Your task to perform on an android device: Empty the shopping cart on target.com. Add "alienware aurora" to the cart on target.com Image 0: 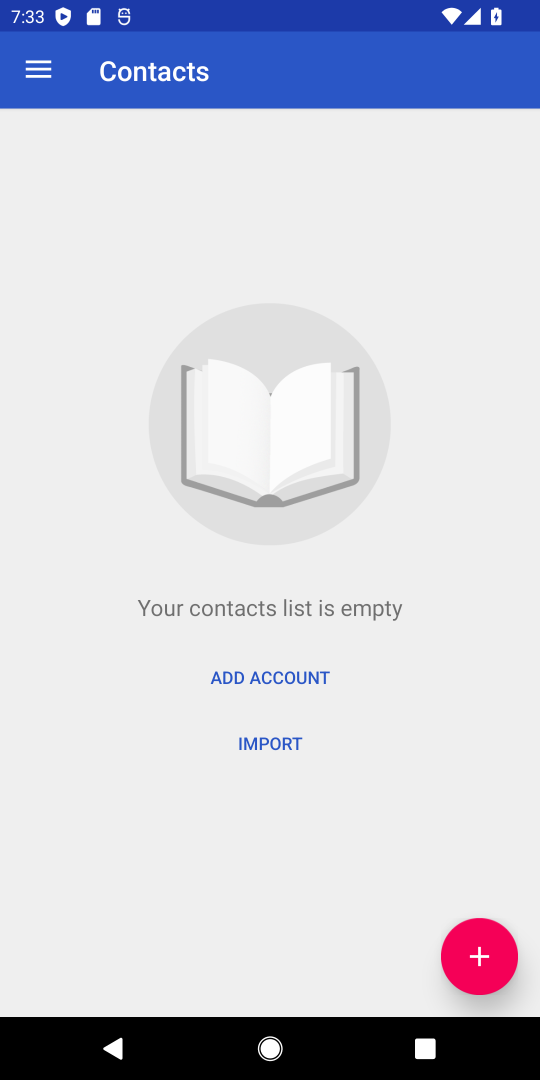
Step 0: press home button
Your task to perform on an android device: Empty the shopping cart on target.com. Add "alienware aurora" to the cart on target.com Image 1: 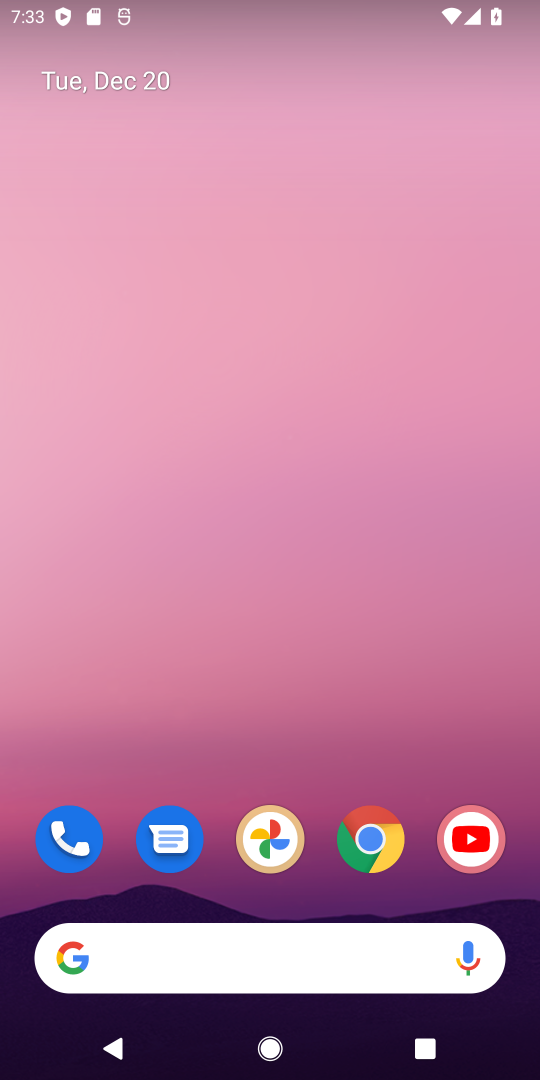
Step 1: drag from (275, 906) to (318, 113)
Your task to perform on an android device: Empty the shopping cart on target.com. Add "alienware aurora" to the cart on target.com Image 2: 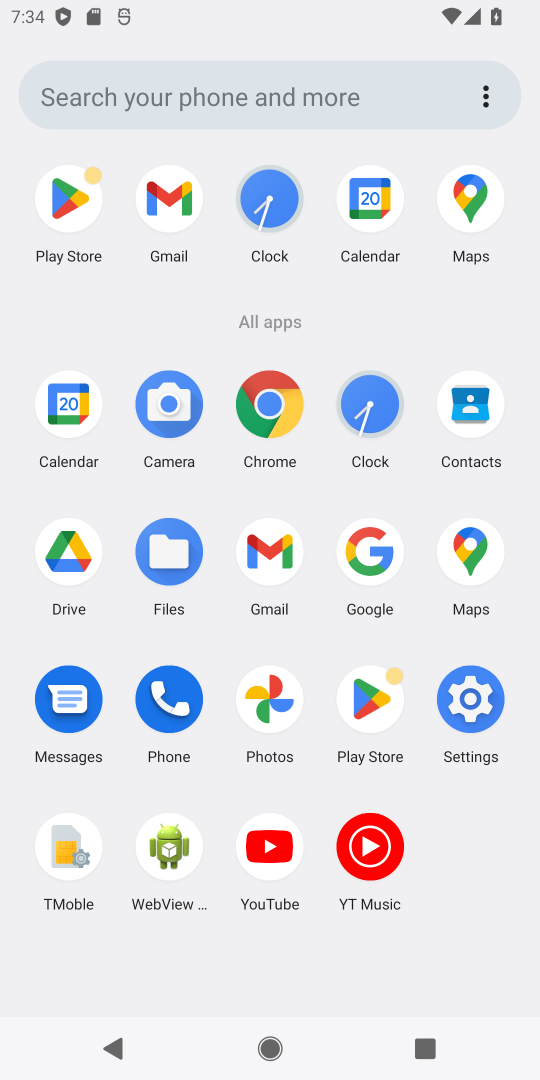
Step 2: drag from (200, 937) to (427, 135)
Your task to perform on an android device: Empty the shopping cart on target.com. Add "alienware aurora" to the cart on target.com Image 3: 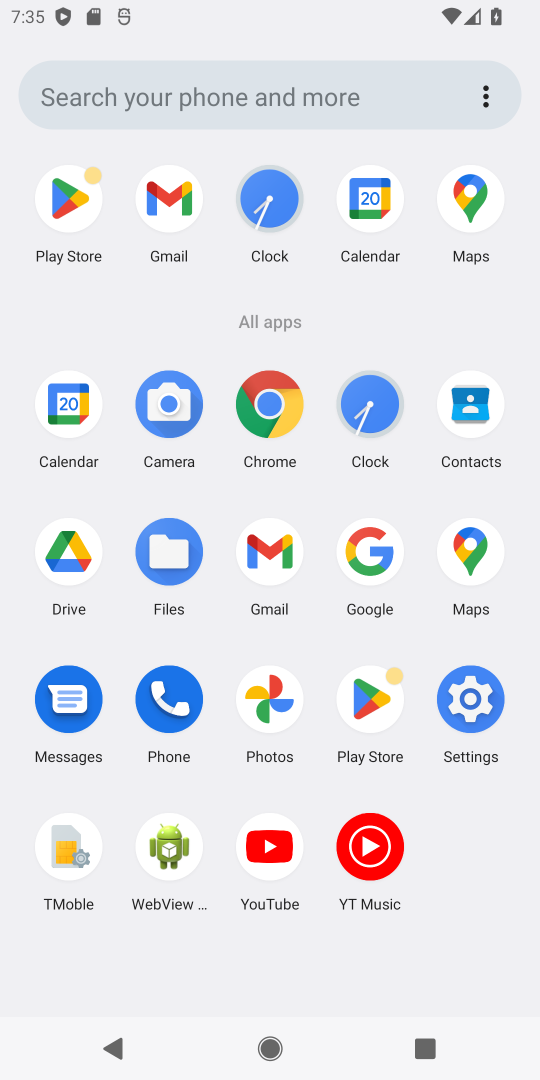
Step 3: click (284, 436)
Your task to perform on an android device: Empty the shopping cart on target.com. Add "alienware aurora" to the cart on target.com Image 4: 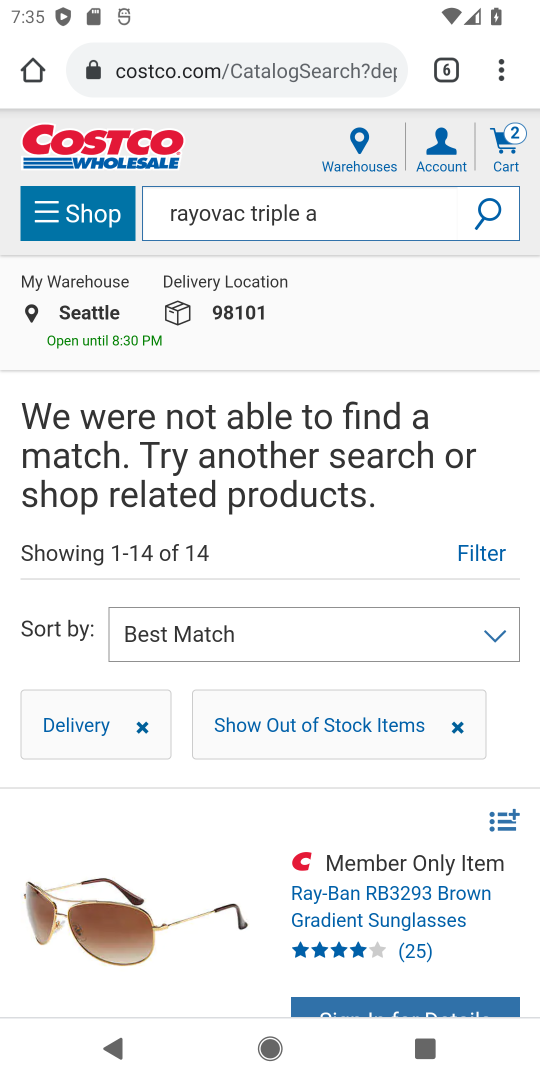
Step 4: click (339, 206)
Your task to perform on an android device: Empty the shopping cart on target.com. Add "alienware aurora" to the cart on target.com Image 5: 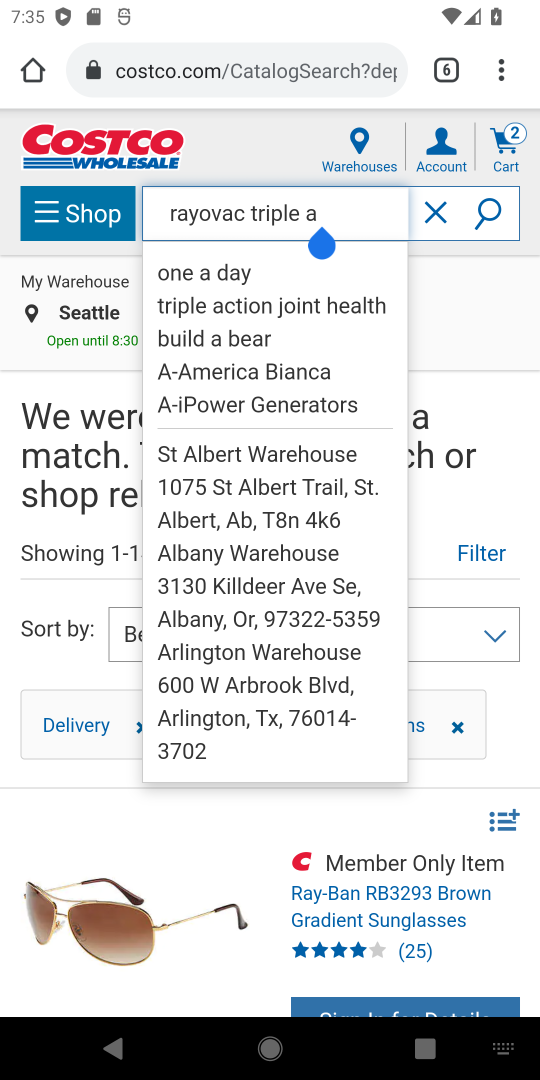
Step 5: click (438, 229)
Your task to perform on an android device: Empty the shopping cart on target.com. Add "alienware aurora" to the cart on target.com Image 6: 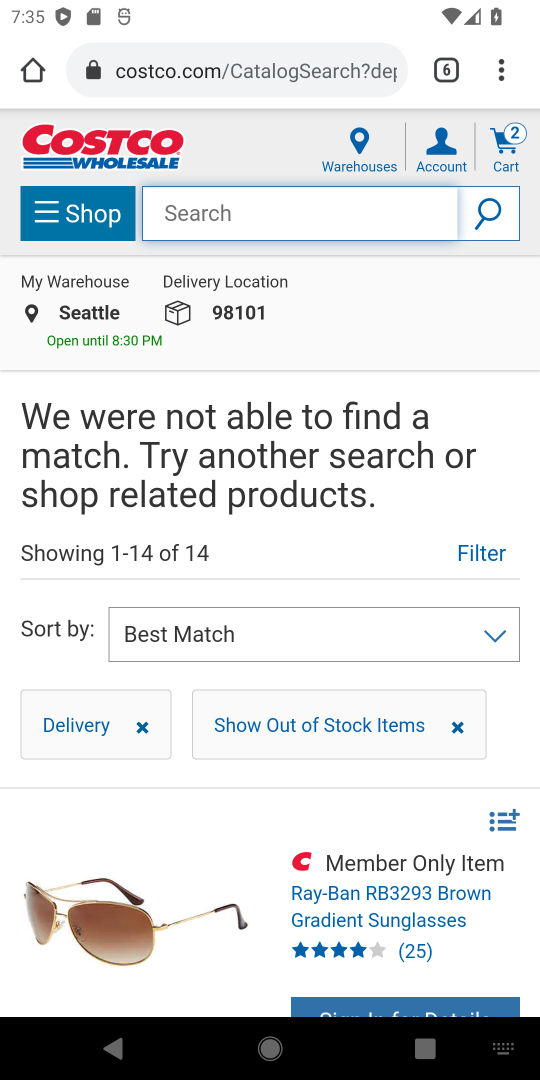
Step 6: type "target.com"
Your task to perform on an android device: Empty the shopping cart on target.com. Add "alienware aurora" to the cart on target.com Image 7: 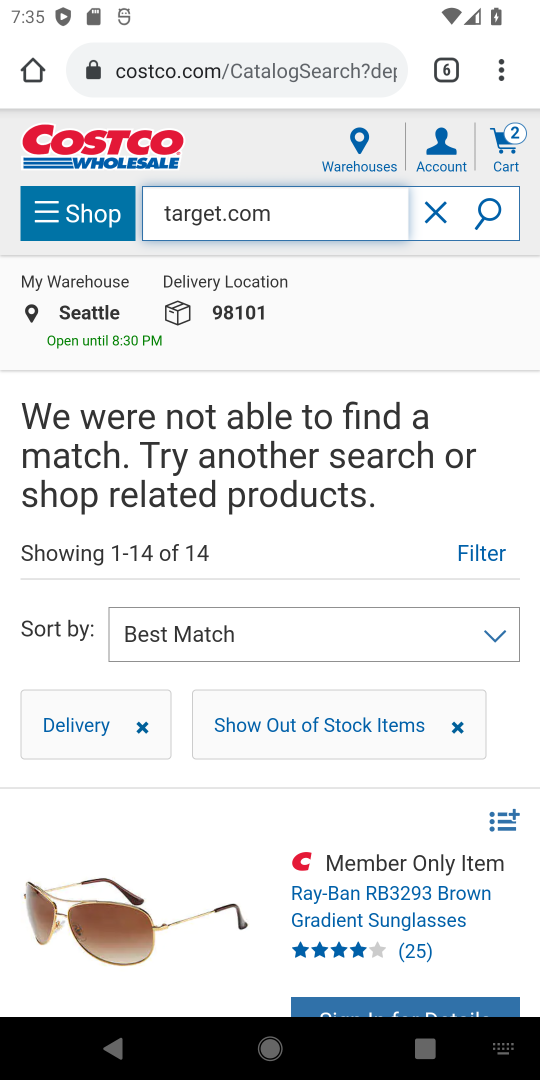
Step 7: click (489, 222)
Your task to perform on an android device: Empty the shopping cart on target.com. Add "alienware aurora" to the cart on target.com Image 8: 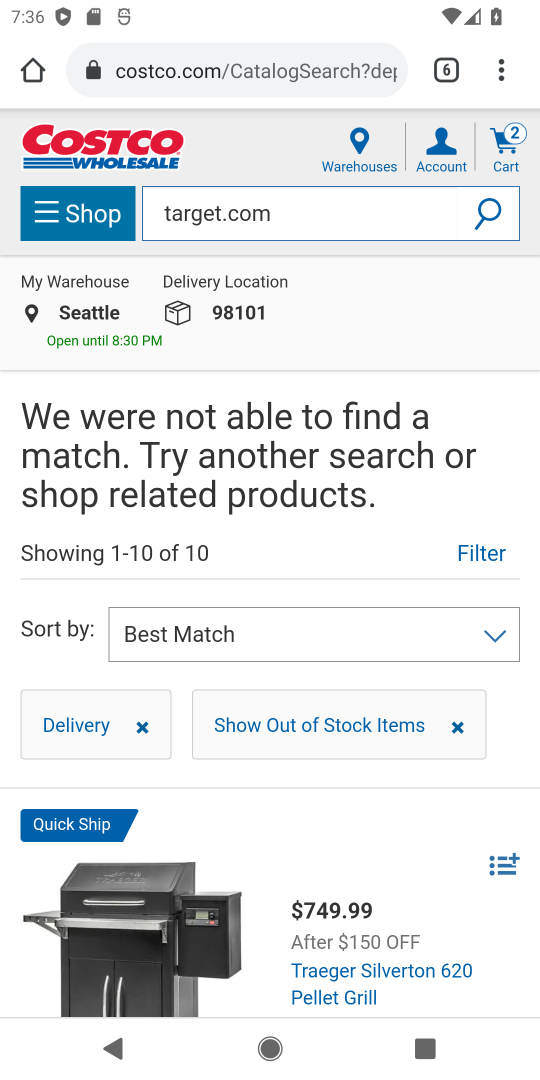
Step 8: click (424, 213)
Your task to perform on an android device: Empty the shopping cart on target.com. Add "alienware aurora" to the cart on target.com Image 9: 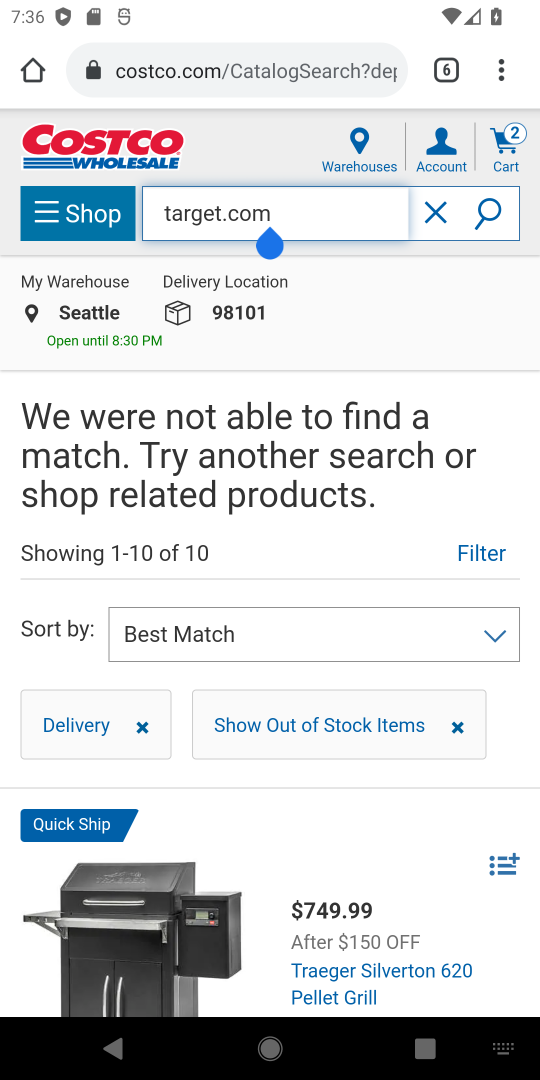
Step 9: click (424, 208)
Your task to perform on an android device: Empty the shopping cart on target.com. Add "alienware aurora" to the cart on target.com Image 10: 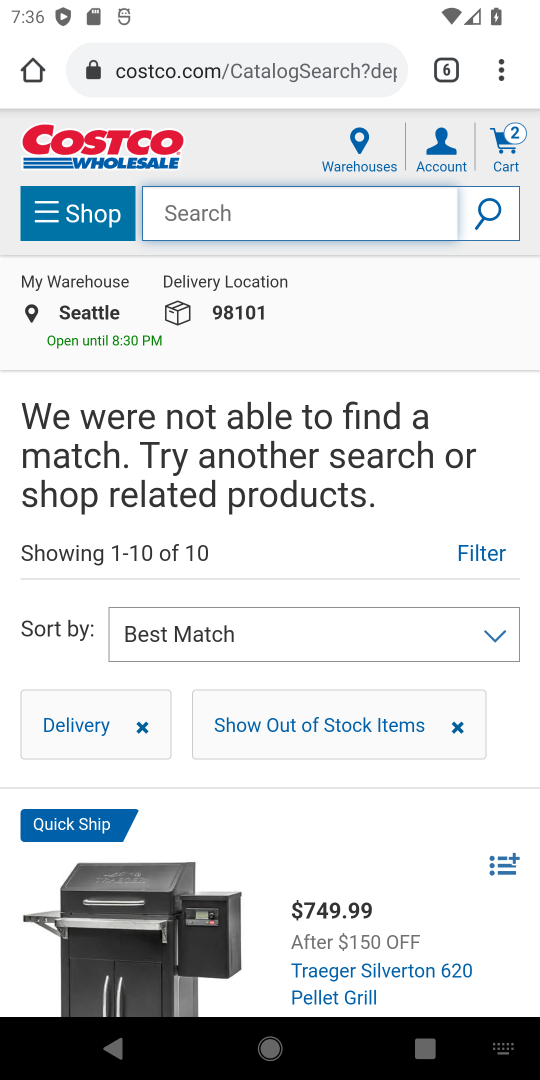
Step 10: type "alienware aurora"
Your task to perform on an android device: Empty the shopping cart on target.com. Add "alienware aurora" to the cart on target.com Image 11: 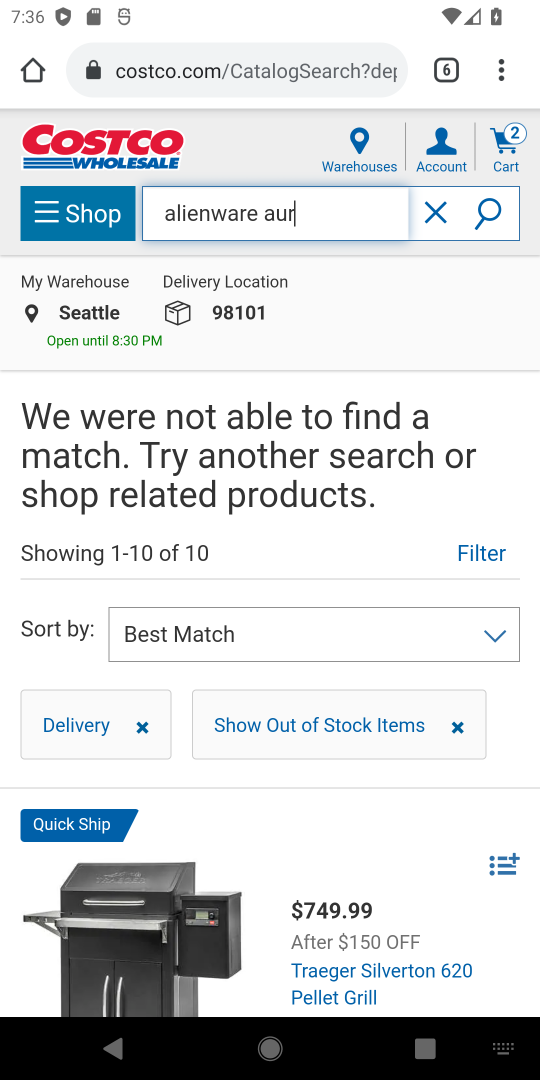
Step 11: type ""
Your task to perform on an android device: Empty the shopping cart on target.com. Add "alienware aurora" to the cart on target.com Image 12: 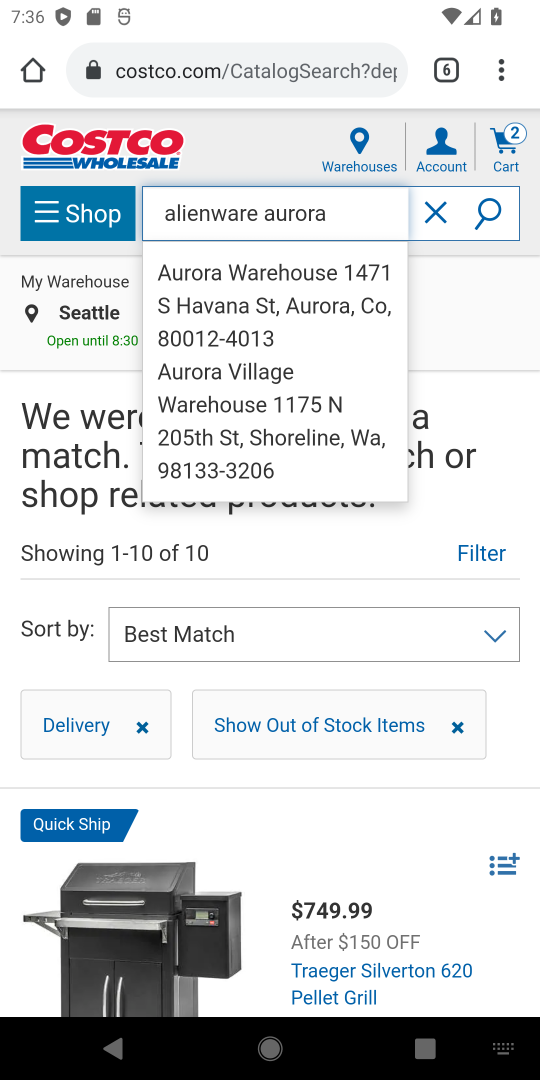
Step 12: click (470, 208)
Your task to perform on an android device: Empty the shopping cart on target.com. Add "alienware aurora" to the cart on target.com Image 13: 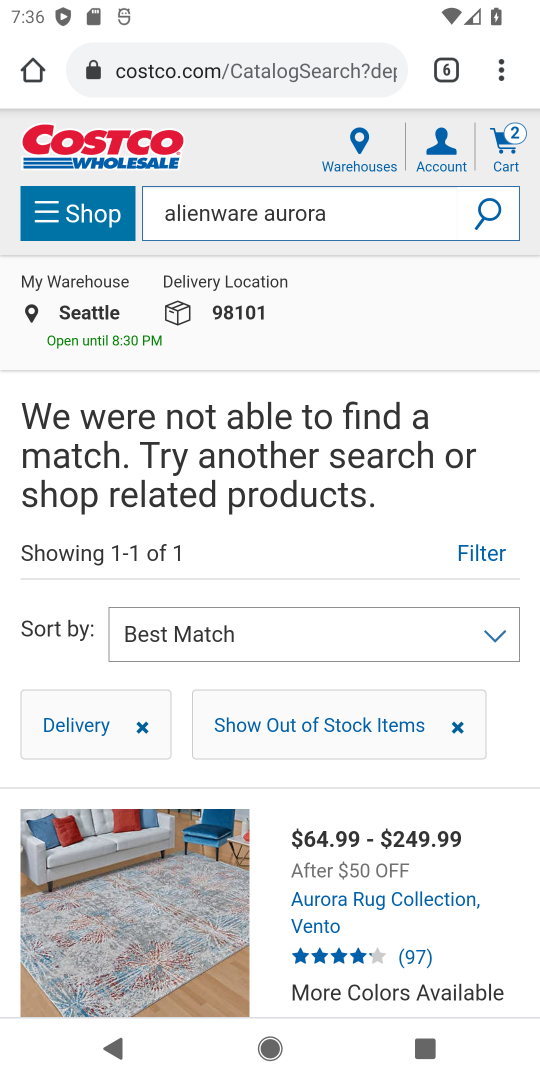
Step 13: task complete